Your task to perform on an android device: empty trash in the gmail app Image 0: 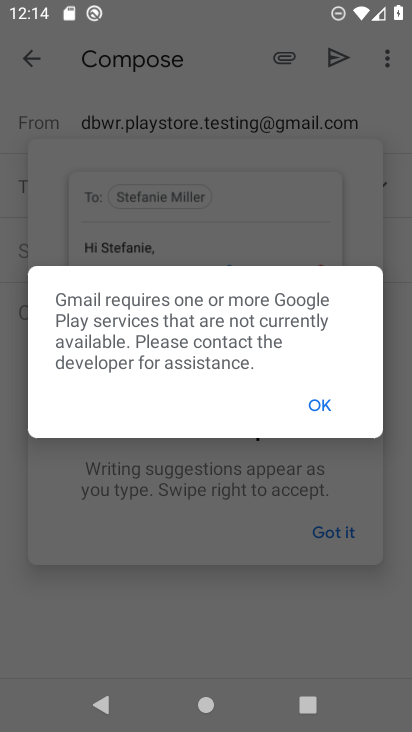
Step 0: press home button
Your task to perform on an android device: empty trash in the gmail app Image 1: 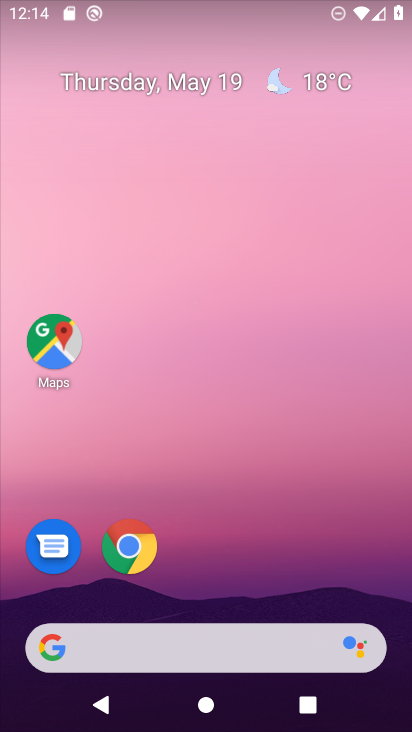
Step 1: drag from (221, 723) to (234, 230)
Your task to perform on an android device: empty trash in the gmail app Image 2: 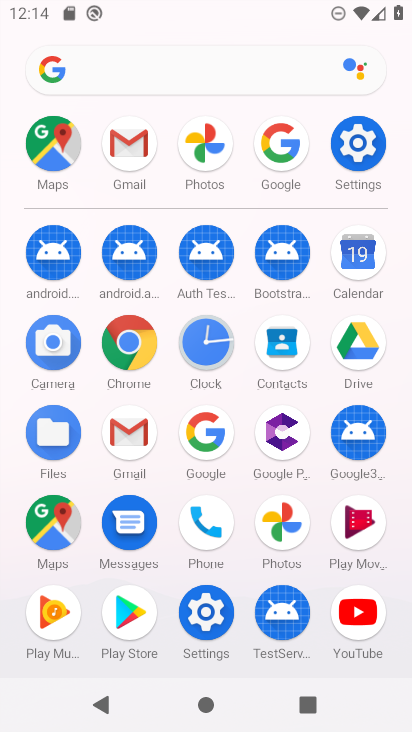
Step 2: click (123, 434)
Your task to perform on an android device: empty trash in the gmail app Image 3: 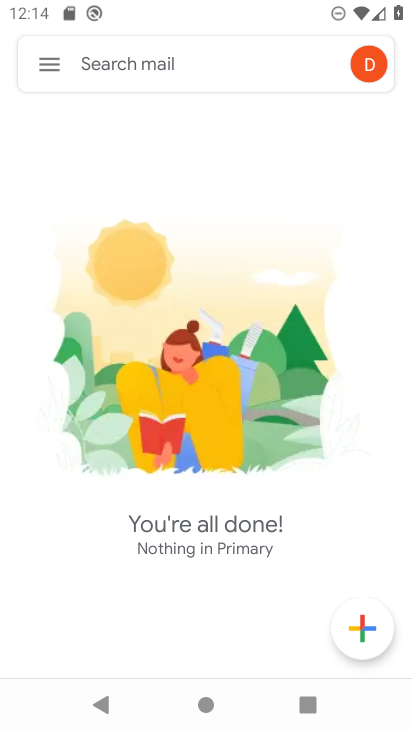
Step 3: click (50, 63)
Your task to perform on an android device: empty trash in the gmail app Image 4: 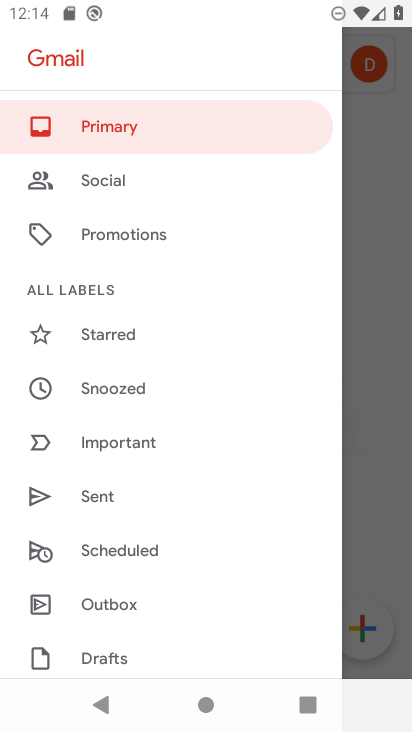
Step 4: drag from (132, 635) to (134, 253)
Your task to perform on an android device: empty trash in the gmail app Image 5: 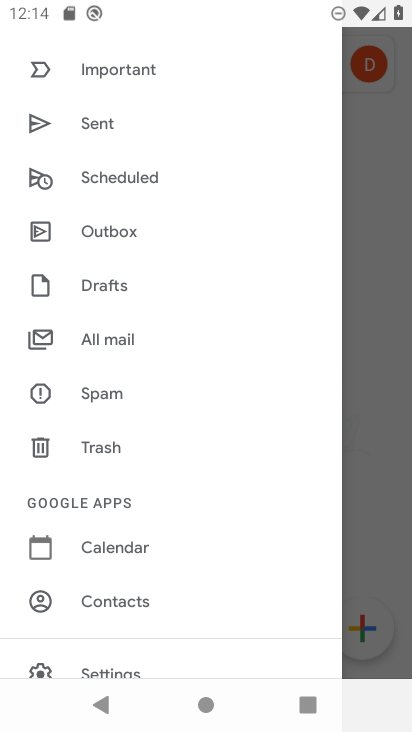
Step 5: click (98, 447)
Your task to perform on an android device: empty trash in the gmail app Image 6: 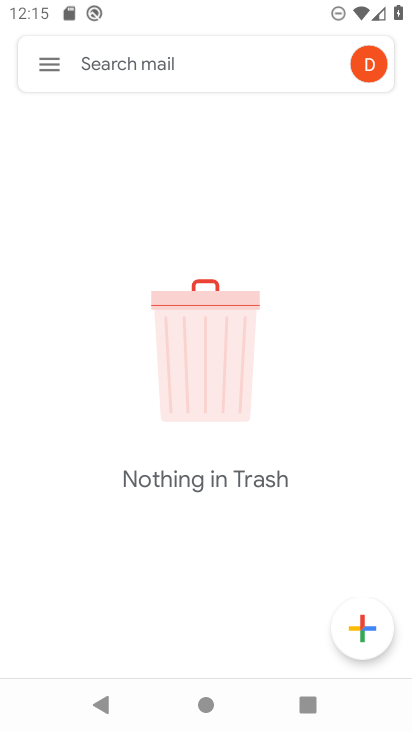
Step 6: task complete